Your task to perform on an android device: open a bookmark in the chrome app Image 0: 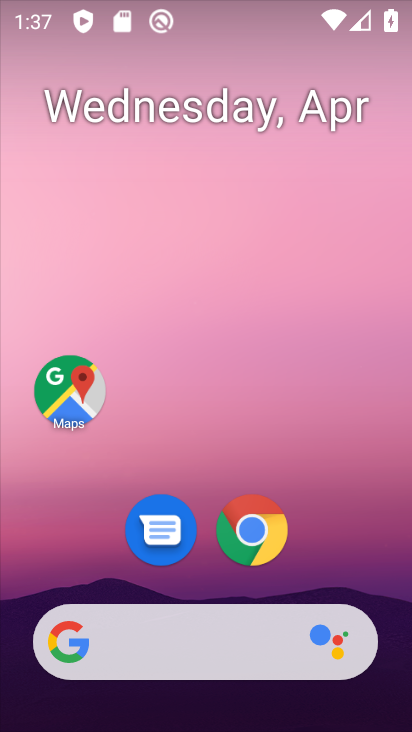
Step 0: drag from (266, 12) to (268, 394)
Your task to perform on an android device: open a bookmark in the chrome app Image 1: 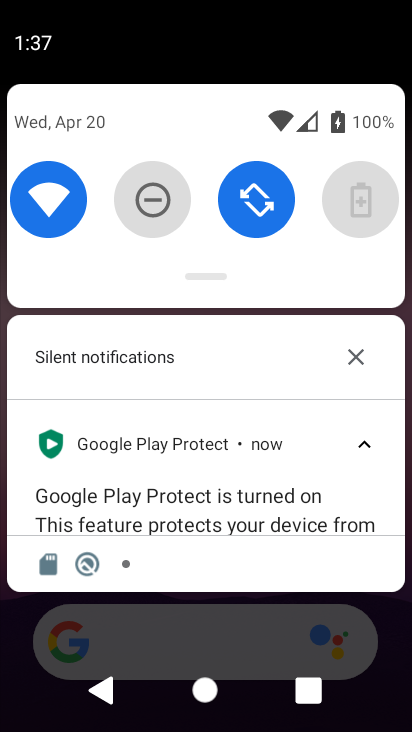
Step 1: drag from (380, 215) to (41, 209)
Your task to perform on an android device: open a bookmark in the chrome app Image 2: 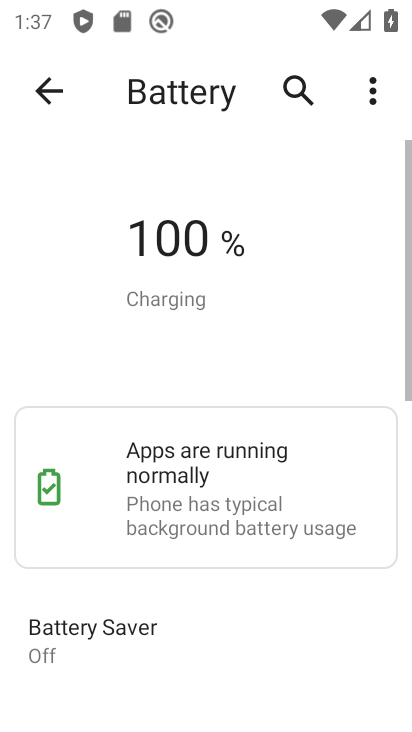
Step 2: click (52, 97)
Your task to perform on an android device: open a bookmark in the chrome app Image 3: 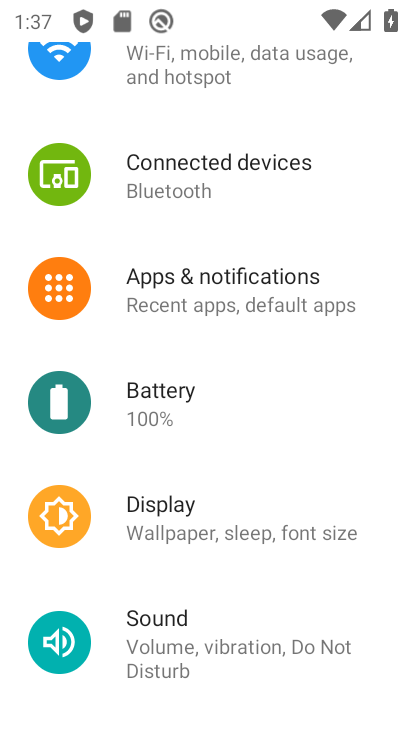
Step 3: click (164, 519)
Your task to perform on an android device: open a bookmark in the chrome app Image 4: 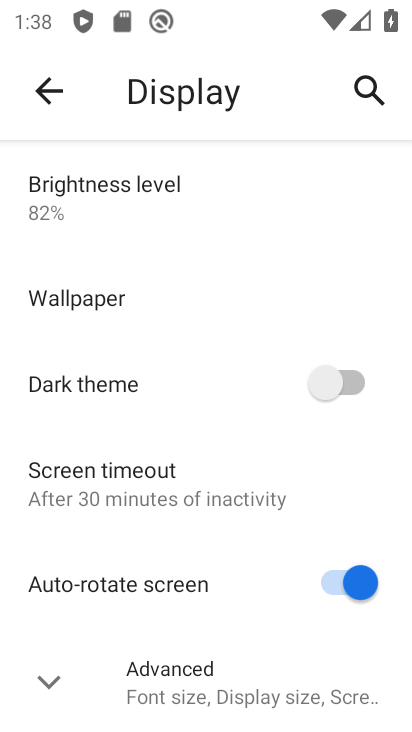
Step 4: press home button
Your task to perform on an android device: open a bookmark in the chrome app Image 5: 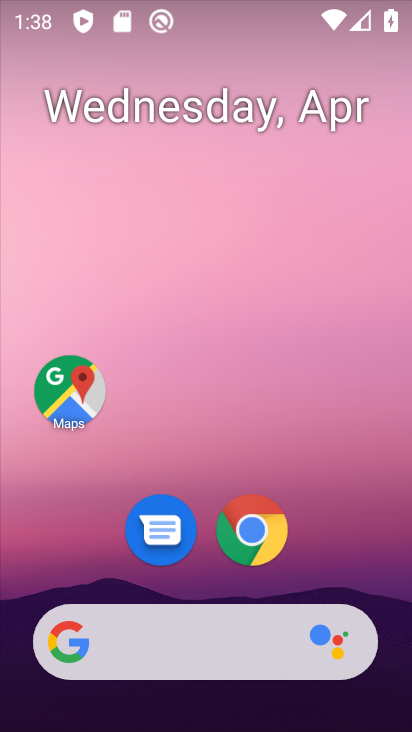
Step 5: drag from (329, 391) to (325, 96)
Your task to perform on an android device: open a bookmark in the chrome app Image 6: 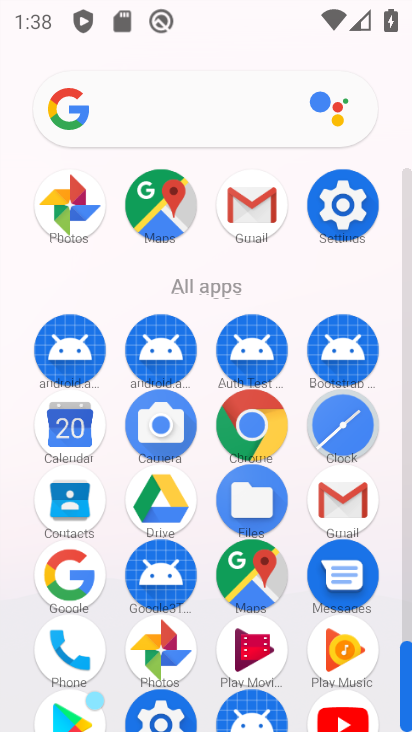
Step 6: click (250, 413)
Your task to perform on an android device: open a bookmark in the chrome app Image 7: 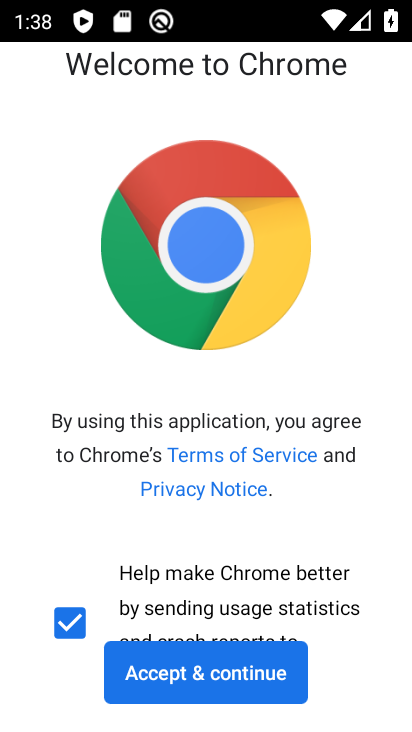
Step 7: click (214, 675)
Your task to perform on an android device: open a bookmark in the chrome app Image 8: 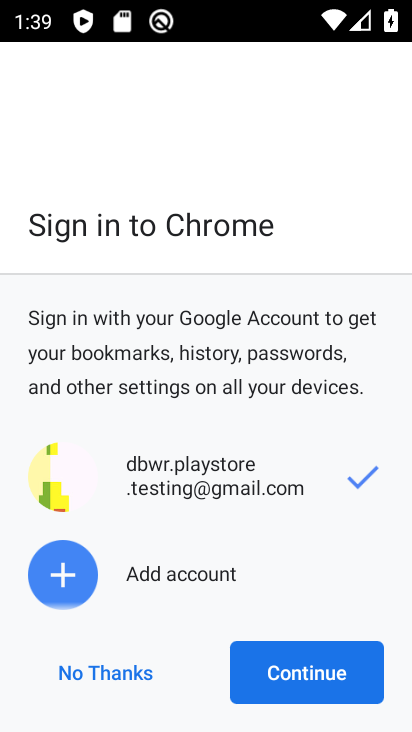
Step 8: click (338, 646)
Your task to perform on an android device: open a bookmark in the chrome app Image 9: 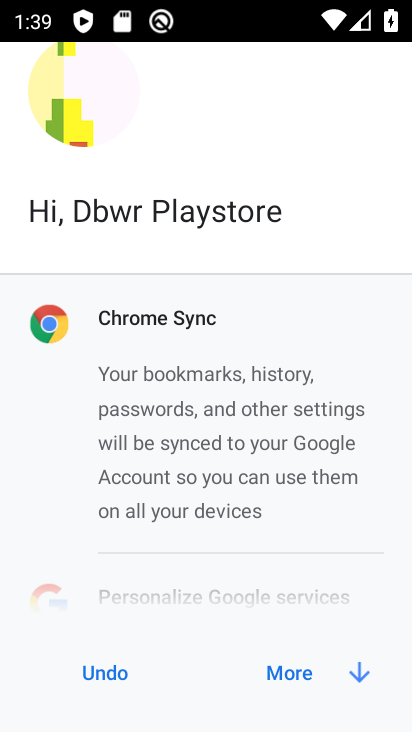
Step 9: click (312, 673)
Your task to perform on an android device: open a bookmark in the chrome app Image 10: 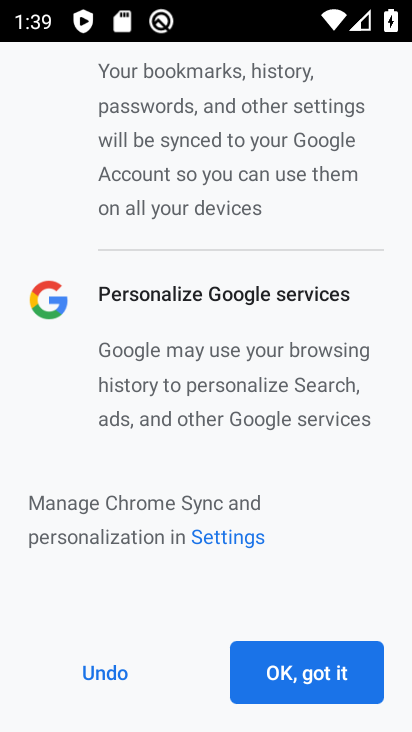
Step 10: click (311, 671)
Your task to perform on an android device: open a bookmark in the chrome app Image 11: 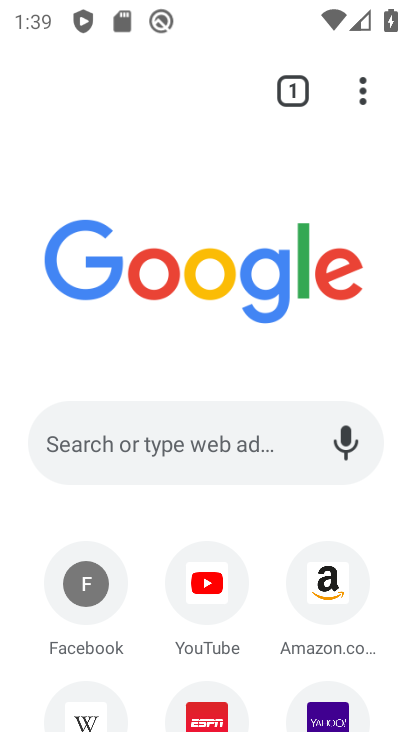
Step 11: task complete